Your task to perform on an android device: check storage Image 0: 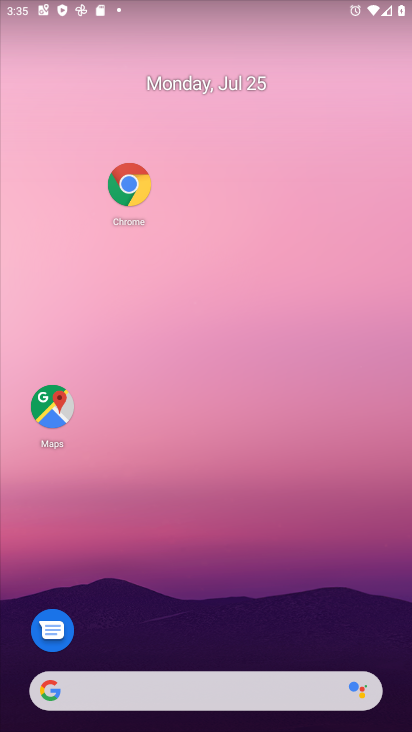
Step 0: drag from (272, 644) to (272, 146)
Your task to perform on an android device: check storage Image 1: 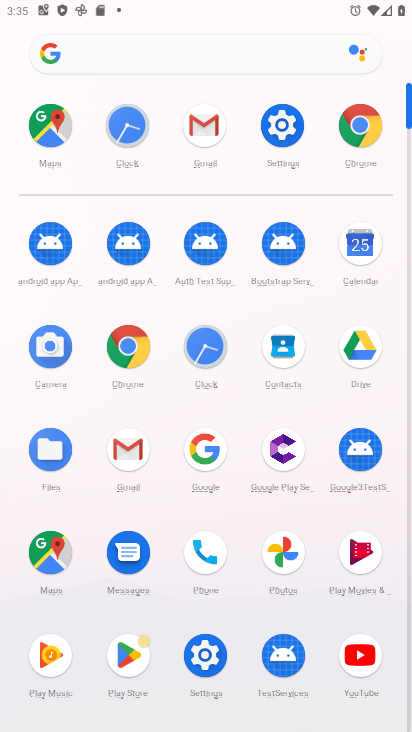
Step 1: click (270, 121)
Your task to perform on an android device: check storage Image 2: 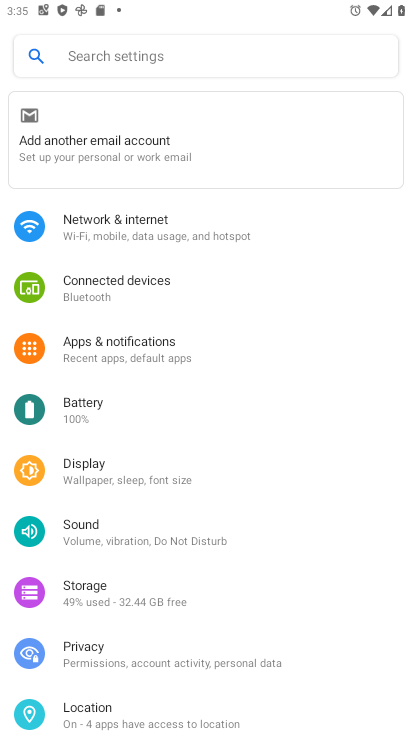
Step 2: click (137, 575)
Your task to perform on an android device: check storage Image 3: 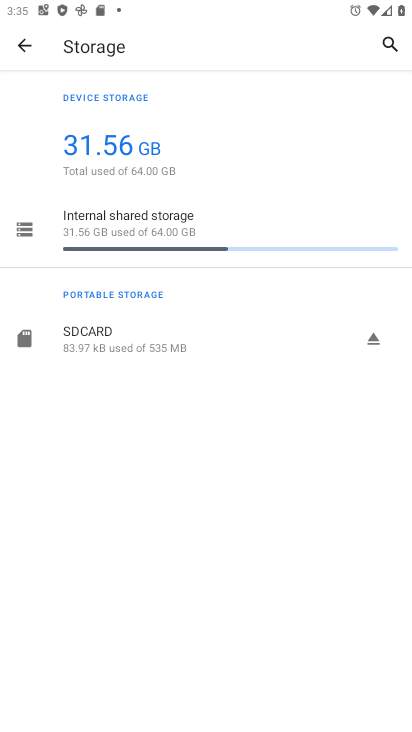
Step 3: task complete